Your task to perform on an android device: Open calendar and show me the third week of next month Image 0: 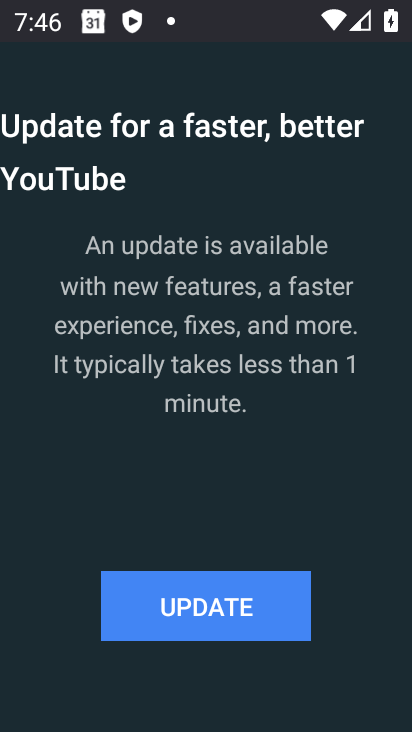
Step 0: press home button
Your task to perform on an android device: Open calendar and show me the third week of next month Image 1: 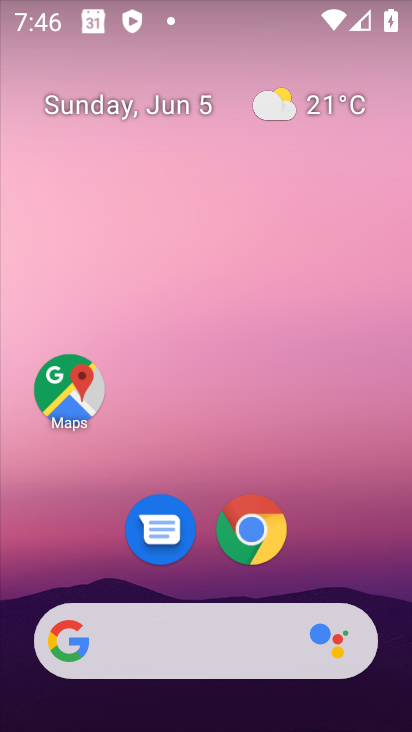
Step 1: drag from (130, 685) to (162, 61)
Your task to perform on an android device: Open calendar and show me the third week of next month Image 2: 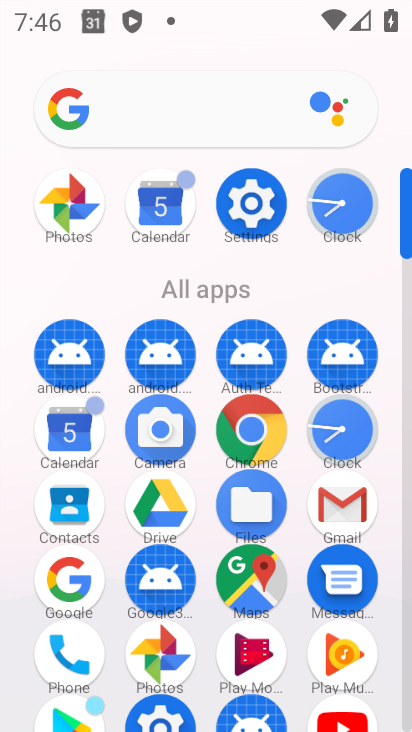
Step 2: click (85, 436)
Your task to perform on an android device: Open calendar and show me the third week of next month Image 3: 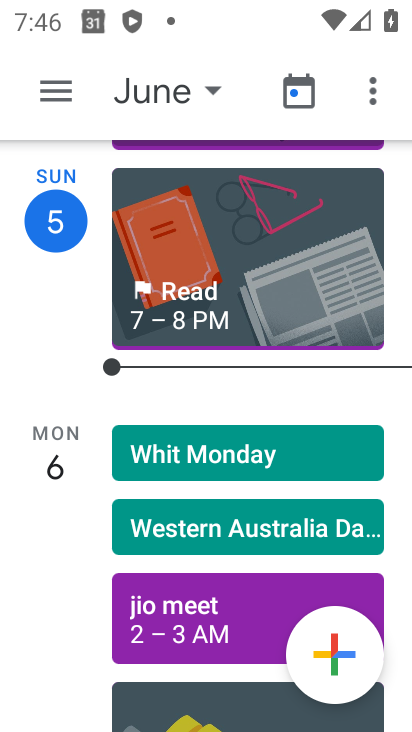
Step 3: click (123, 98)
Your task to perform on an android device: Open calendar and show me the third week of next month Image 4: 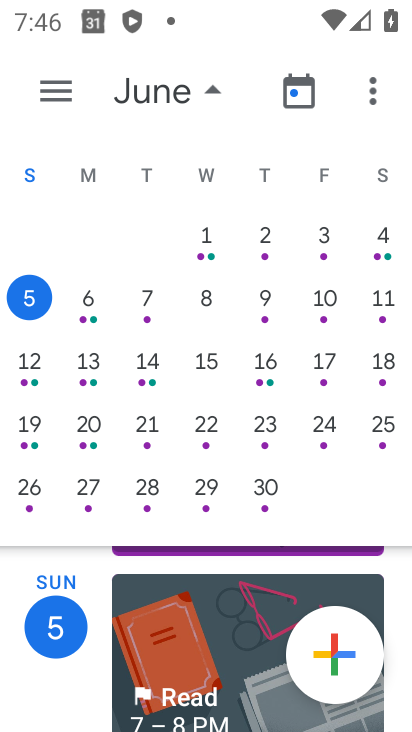
Step 4: drag from (354, 375) to (43, 349)
Your task to perform on an android device: Open calendar and show me the third week of next month Image 5: 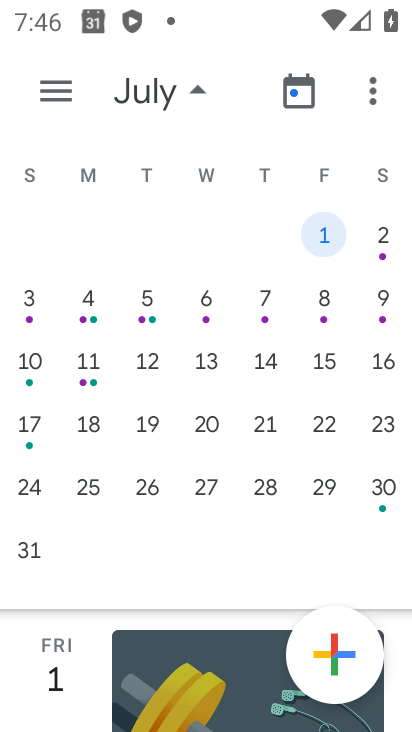
Step 5: click (31, 370)
Your task to perform on an android device: Open calendar and show me the third week of next month Image 6: 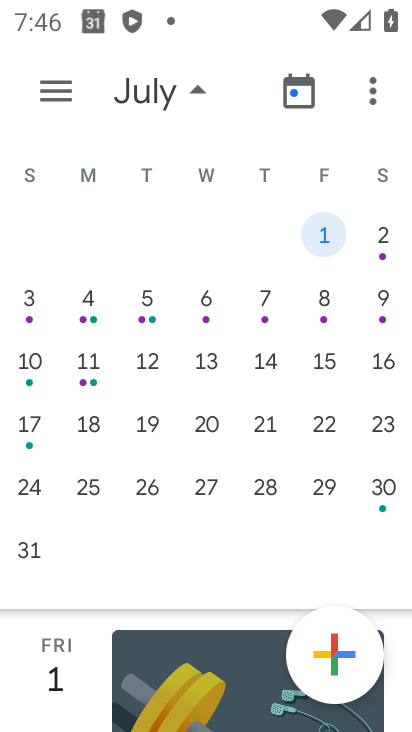
Step 6: click (29, 364)
Your task to perform on an android device: Open calendar and show me the third week of next month Image 7: 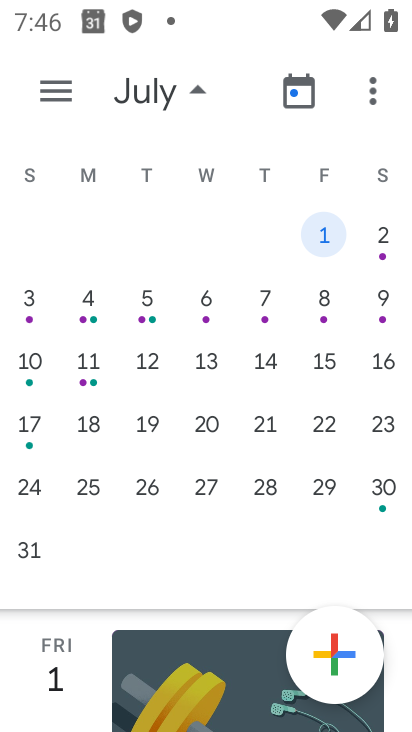
Step 7: click (39, 357)
Your task to perform on an android device: Open calendar and show me the third week of next month Image 8: 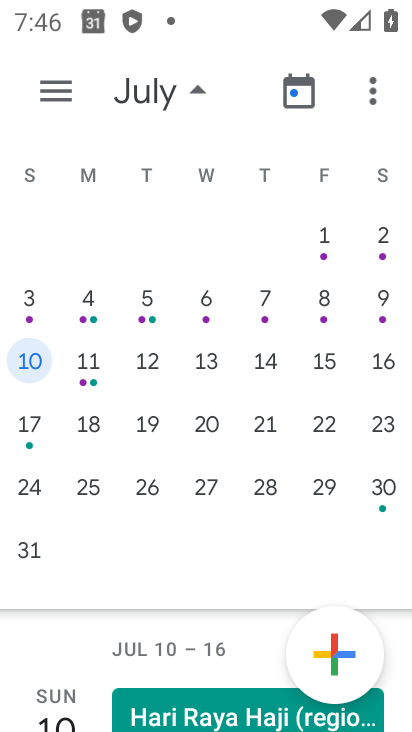
Step 8: task complete